Your task to perform on an android device: Do I have any events this weekend? Image 0: 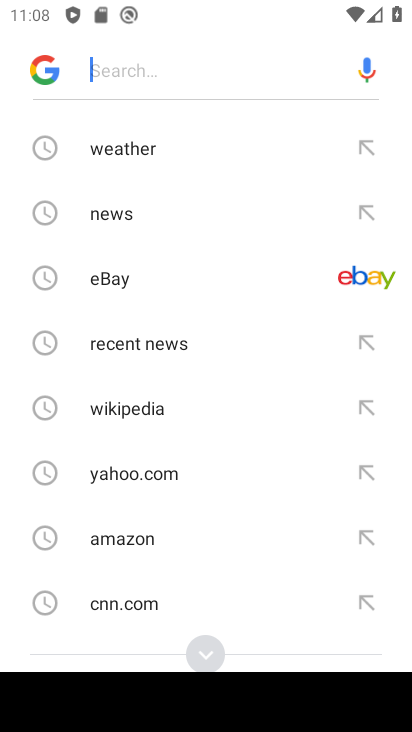
Step 0: press home button
Your task to perform on an android device: Do I have any events this weekend? Image 1: 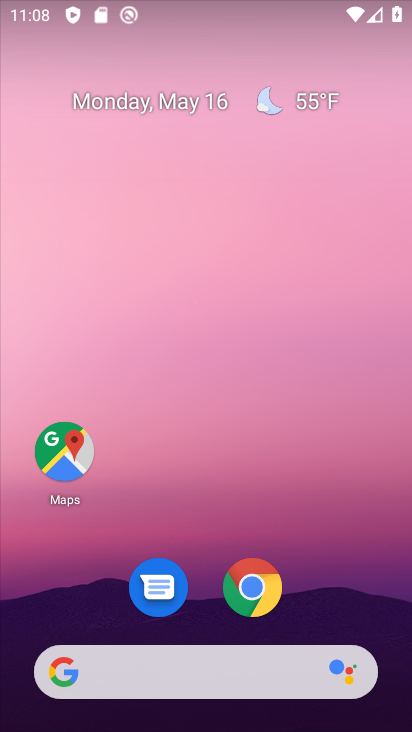
Step 1: drag from (207, 550) to (358, 99)
Your task to perform on an android device: Do I have any events this weekend? Image 2: 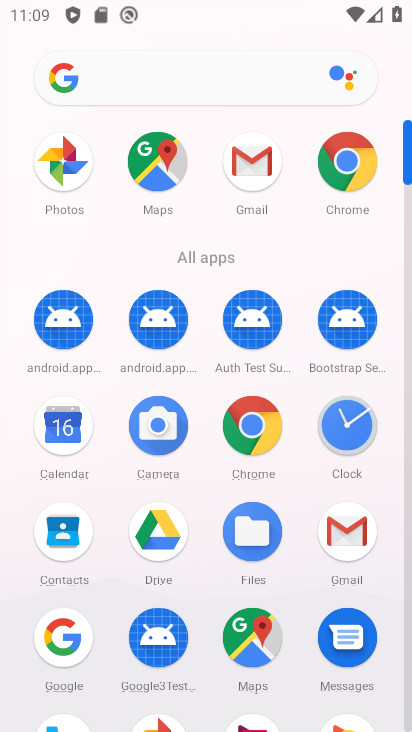
Step 2: click (67, 425)
Your task to perform on an android device: Do I have any events this weekend? Image 3: 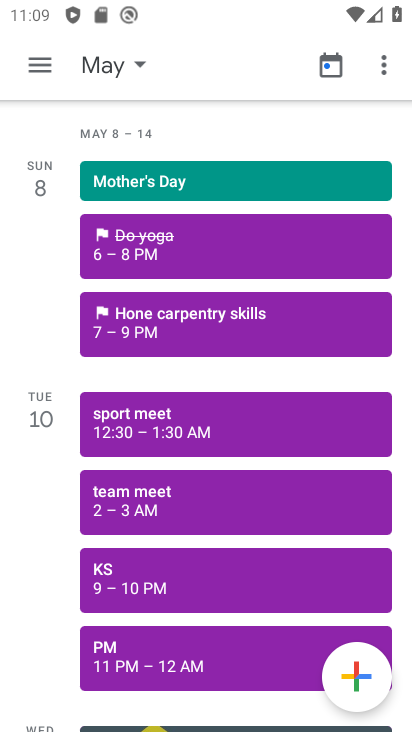
Step 3: click (106, 70)
Your task to perform on an android device: Do I have any events this weekend? Image 4: 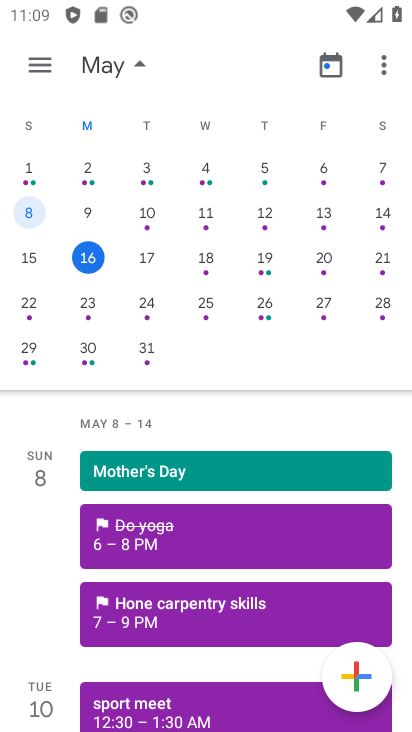
Step 4: click (278, 263)
Your task to perform on an android device: Do I have any events this weekend? Image 5: 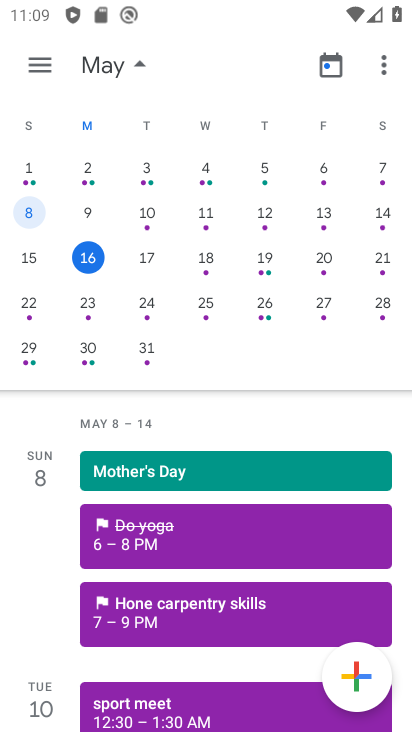
Step 5: click (269, 262)
Your task to perform on an android device: Do I have any events this weekend? Image 6: 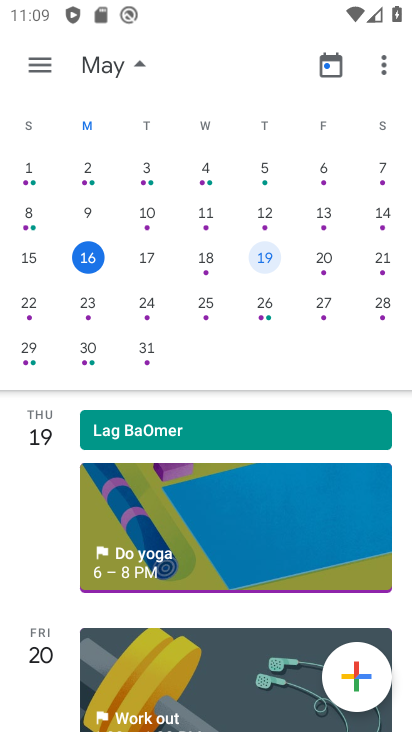
Step 6: task complete